Your task to perform on an android device: Open the web browser Image 0: 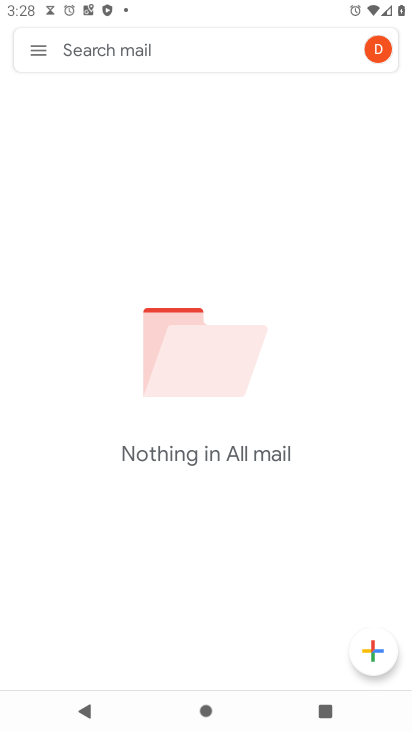
Step 0: press back button
Your task to perform on an android device: Open the web browser Image 1: 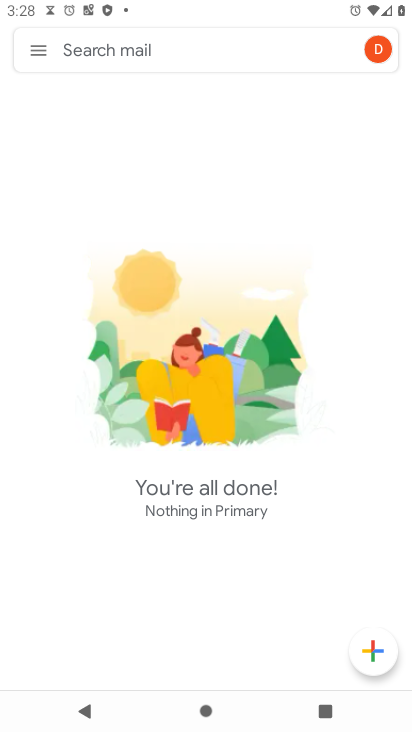
Step 1: press back button
Your task to perform on an android device: Open the web browser Image 2: 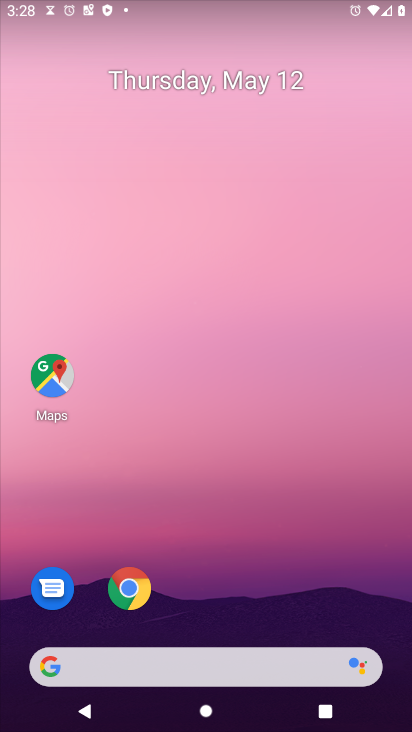
Step 2: drag from (273, 487) to (257, 63)
Your task to perform on an android device: Open the web browser Image 3: 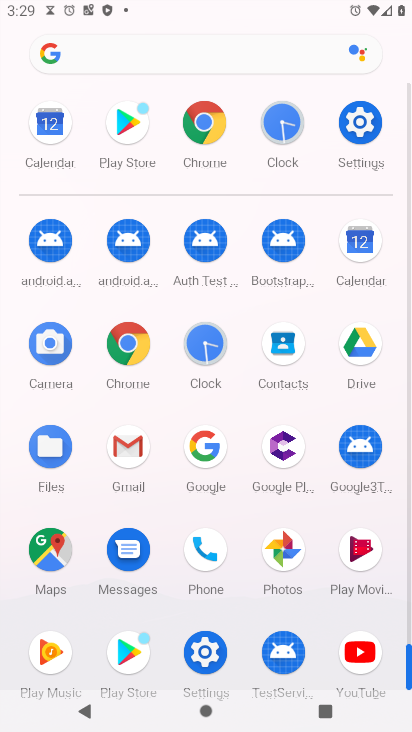
Step 3: drag from (5, 526) to (20, 288)
Your task to perform on an android device: Open the web browser Image 4: 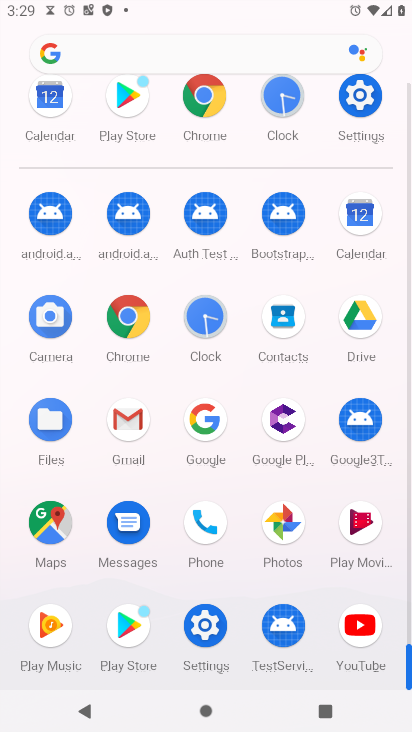
Step 4: click (126, 310)
Your task to perform on an android device: Open the web browser Image 5: 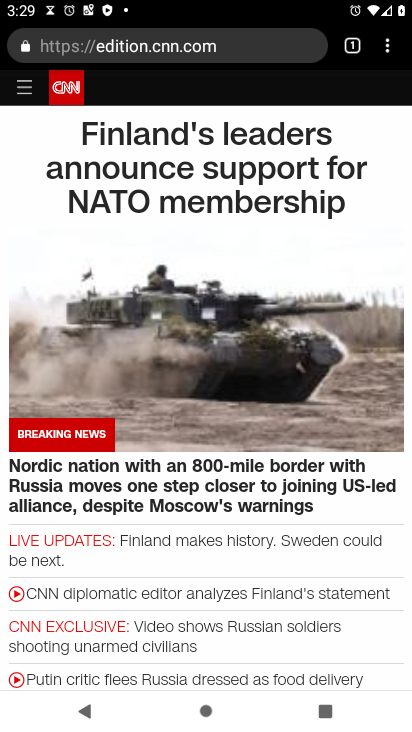
Step 5: task complete